Your task to perform on an android device: turn off wifi Image 0: 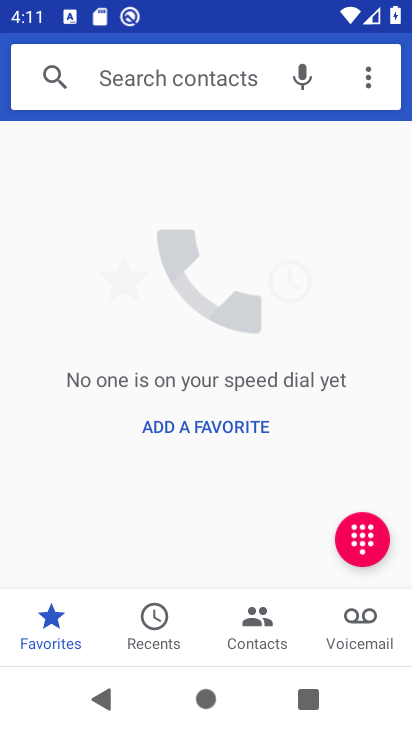
Step 0: press home button
Your task to perform on an android device: turn off wifi Image 1: 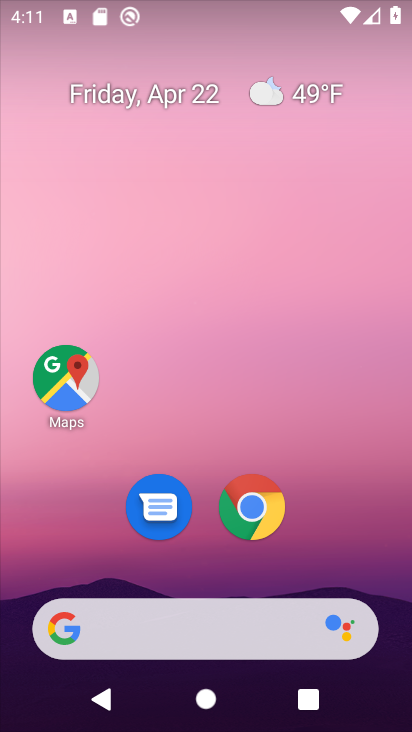
Step 1: drag from (393, 599) to (314, 64)
Your task to perform on an android device: turn off wifi Image 2: 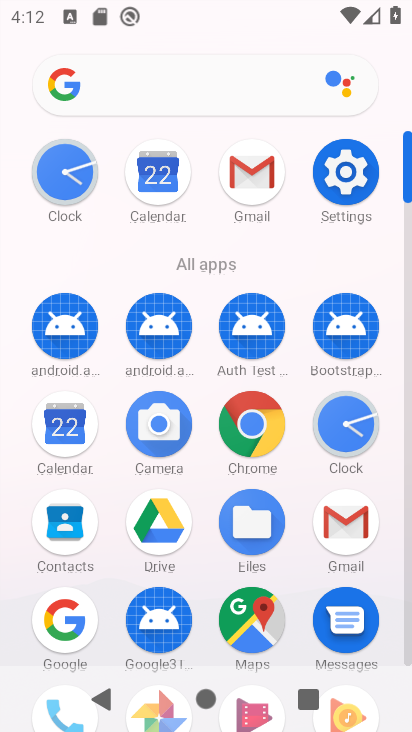
Step 2: click (407, 648)
Your task to perform on an android device: turn off wifi Image 3: 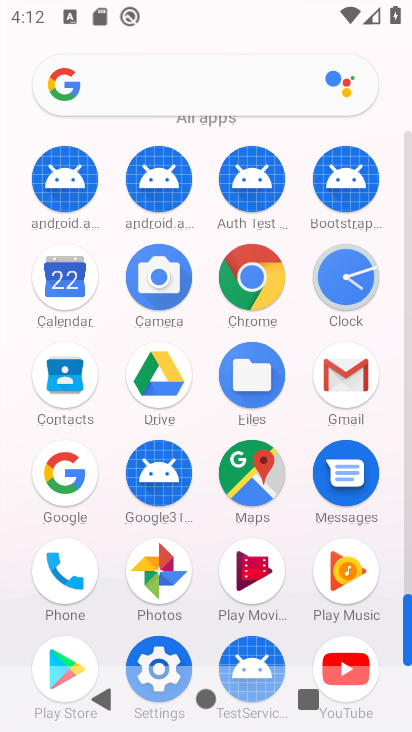
Step 3: drag from (409, 573) to (401, 474)
Your task to perform on an android device: turn off wifi Image 4: 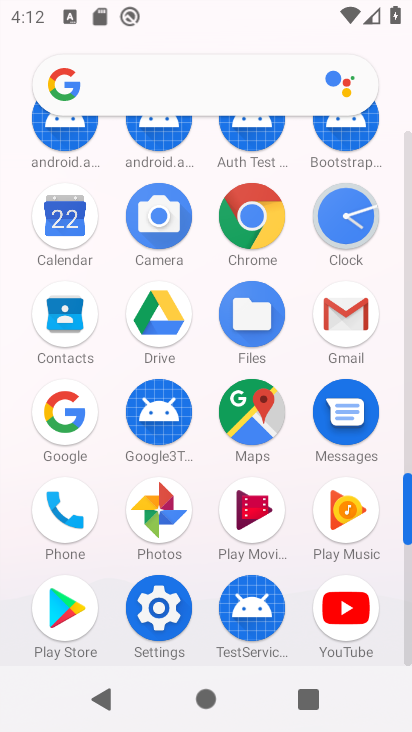
Step 4: click (157, 605)
Your task to perform on an android device: turn off wifi Image 5: 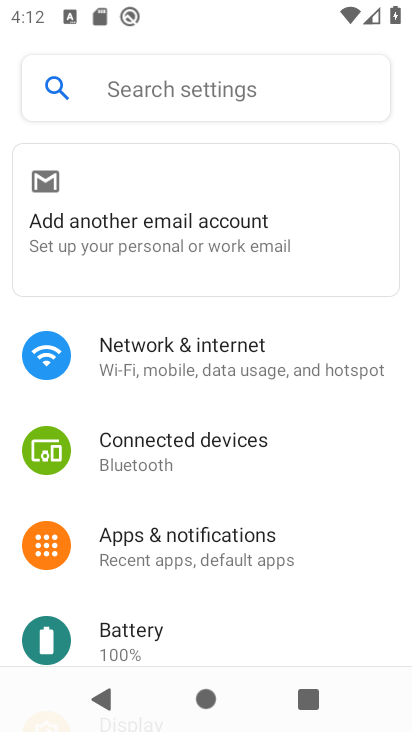
Step 5: click (163, 356)
Your task to perform on an android device: turn off wifi Image 6: 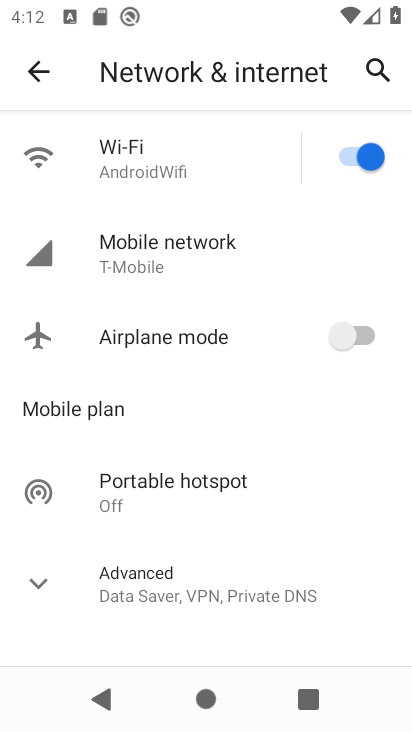
Step 6: click (343, 153)
Your task to perform on an android device: turn off wifi Image 7: 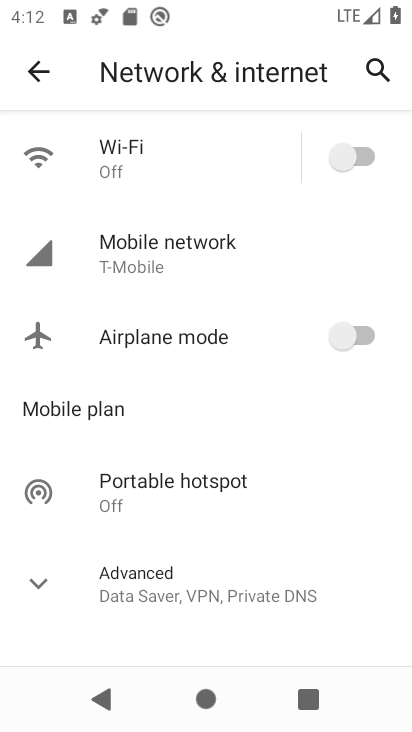
Step 7: task complete